Your task to perform on an android device: Play the last video I watched on Youtube Image 0: 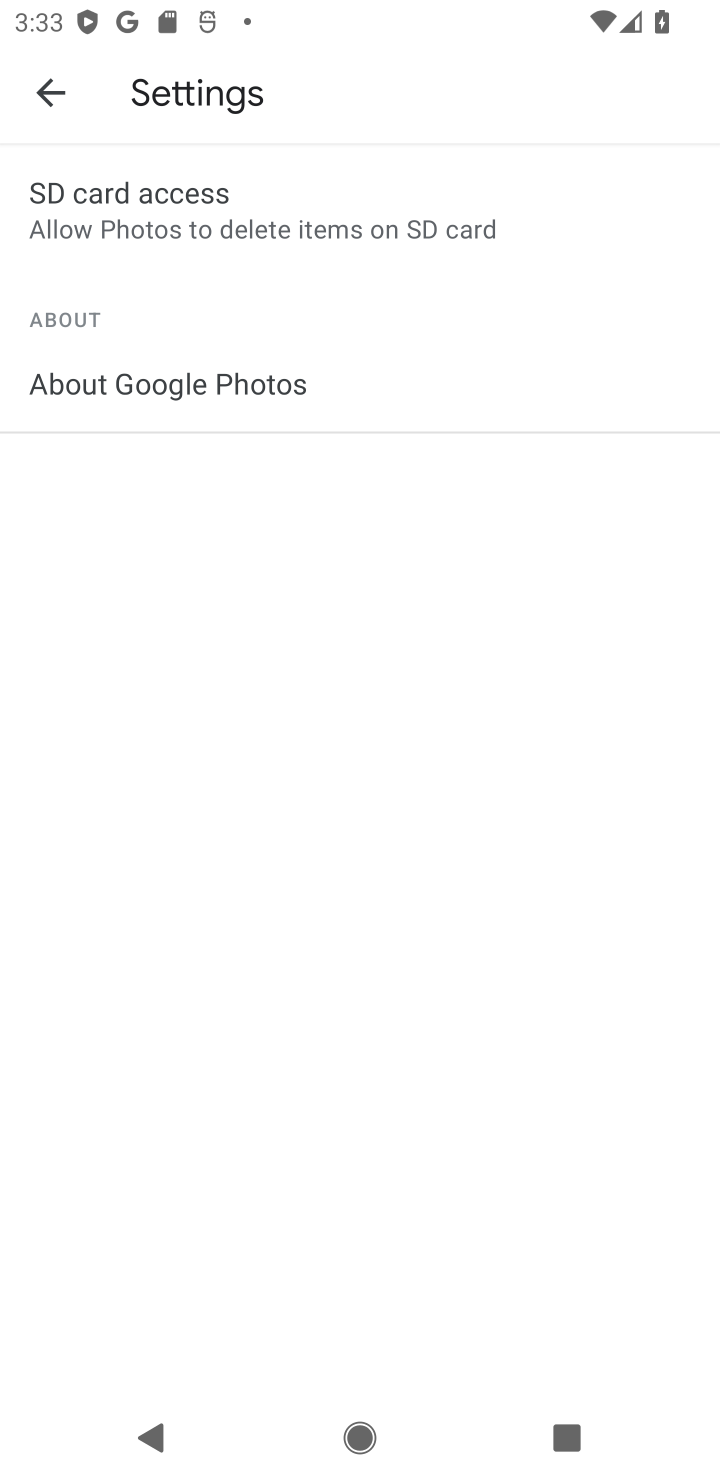
Step 0: press home button
Your task to perform on an android device: Play the last video I watched on Youtube Image 1: 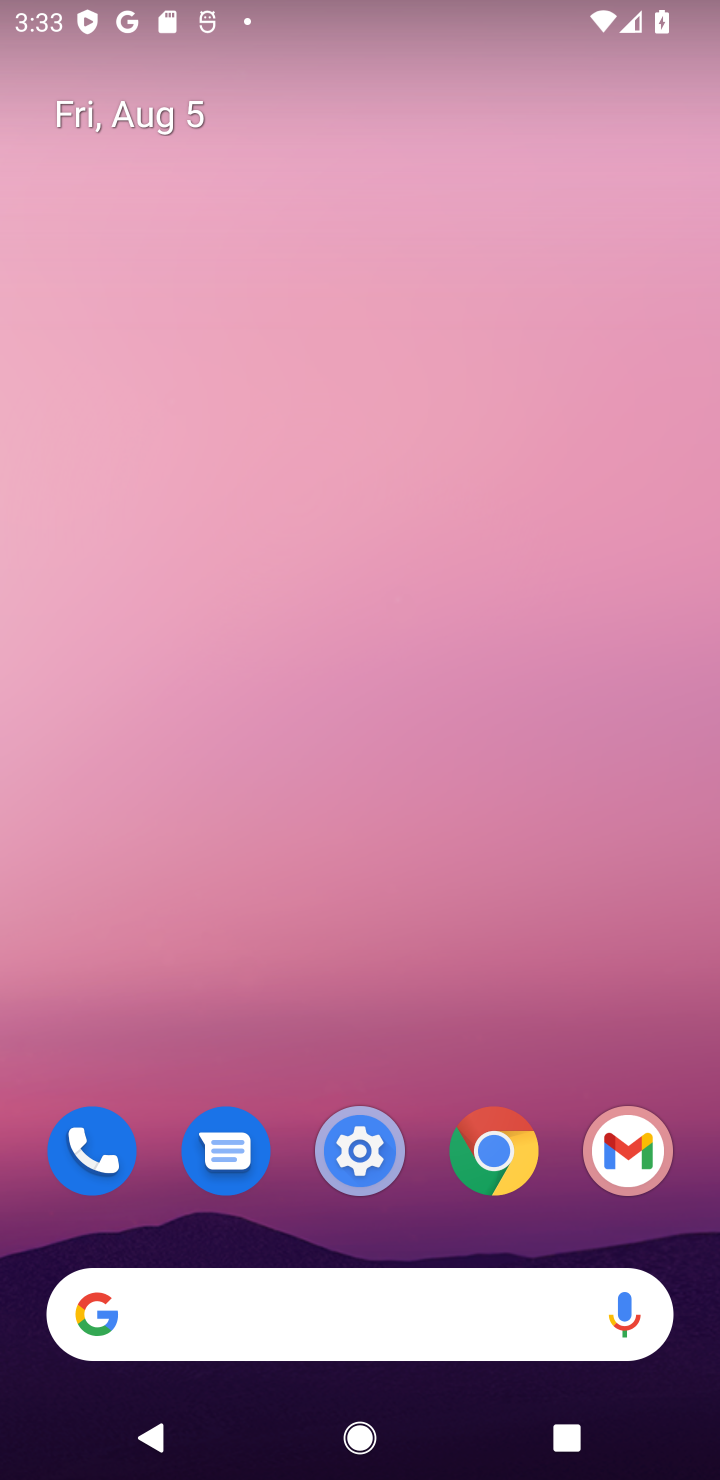
Step 1: drag from (446, 1040) to (392, 135)
Your task to perform on an android device: Play the last video I watched on Youtube Image 2: 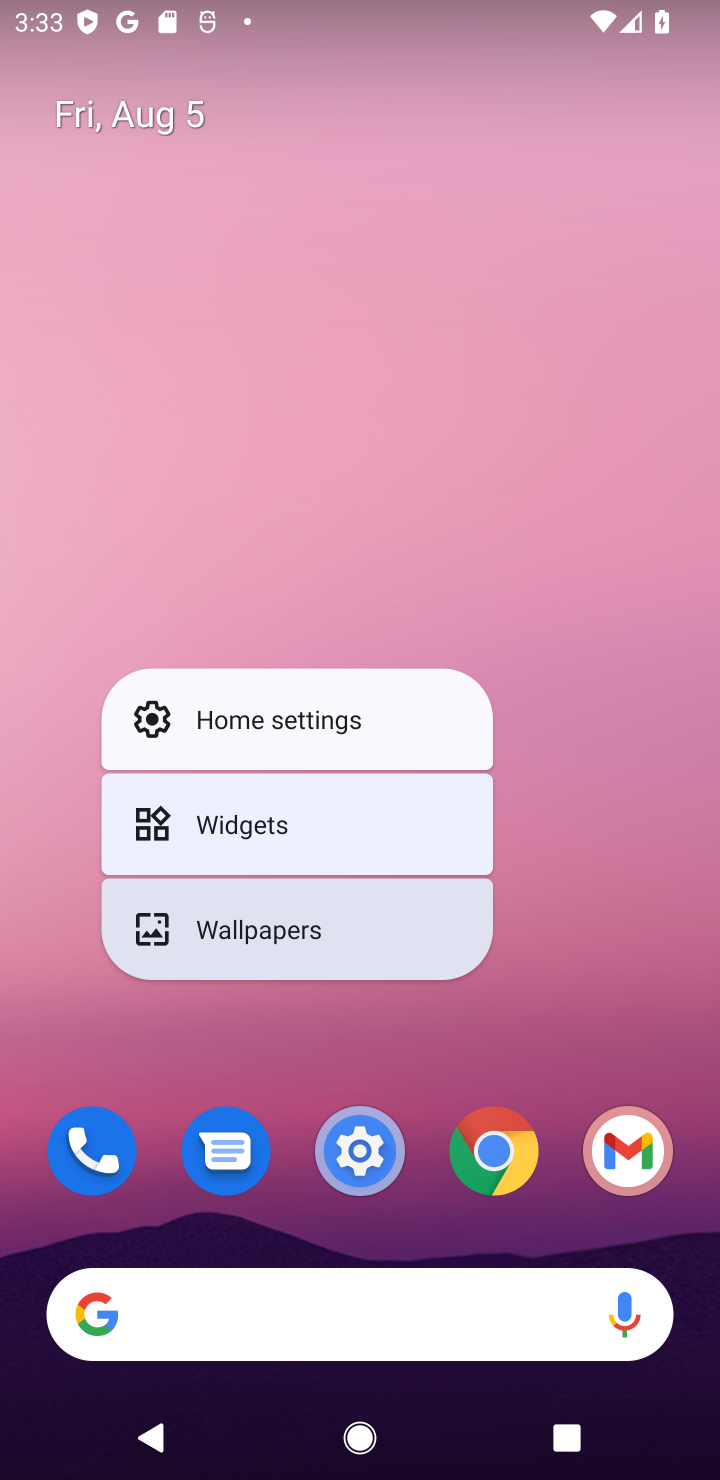
Step 2: click (410, 194)
Your task to perform on an android device: Play the last video I watched on Youtube Image 3: 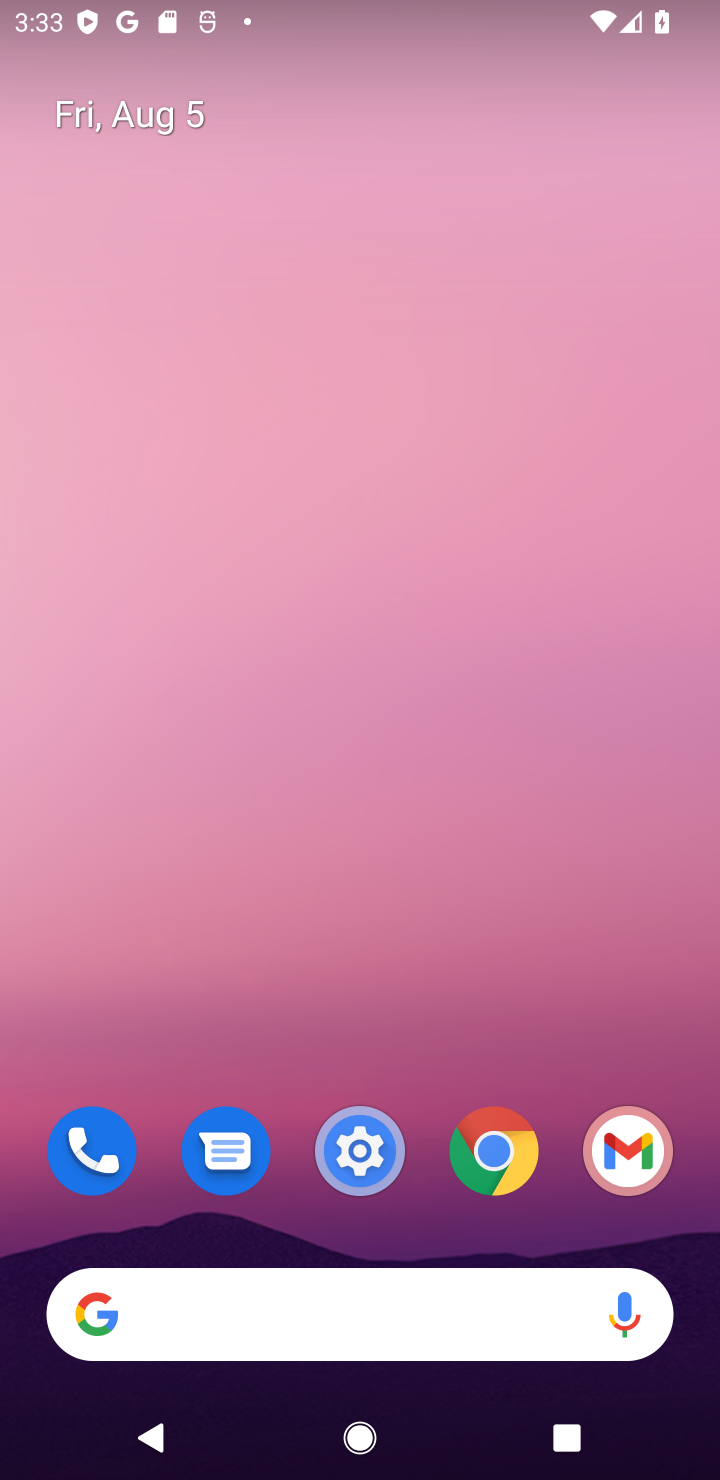
Step 3: drag from (436, 1019) to (534, 141)
Your task to perform on an android device: Play the last video I watched on Youtube Image 4: 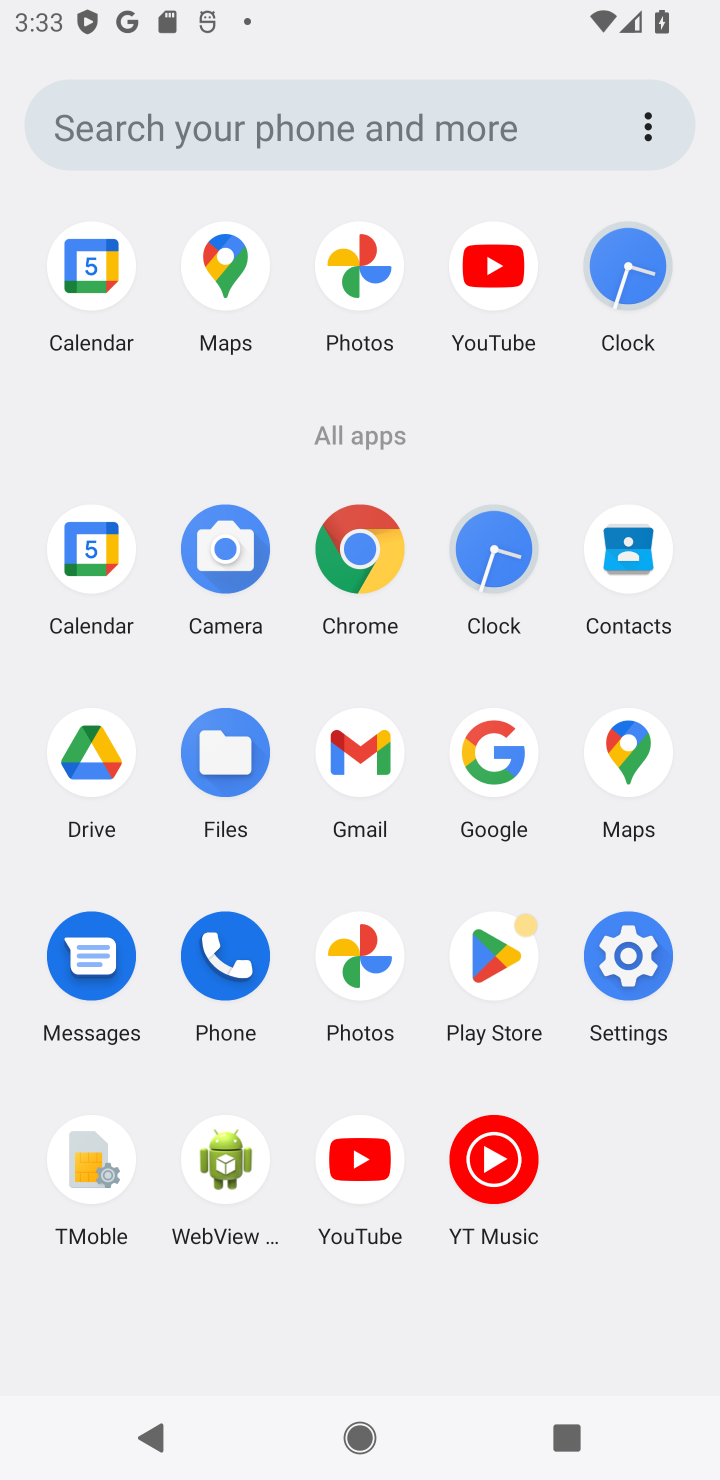
Step 4: click (352, 1164)
Your task to perform on an android device: Play the last video I watched on Youtube Image 5: 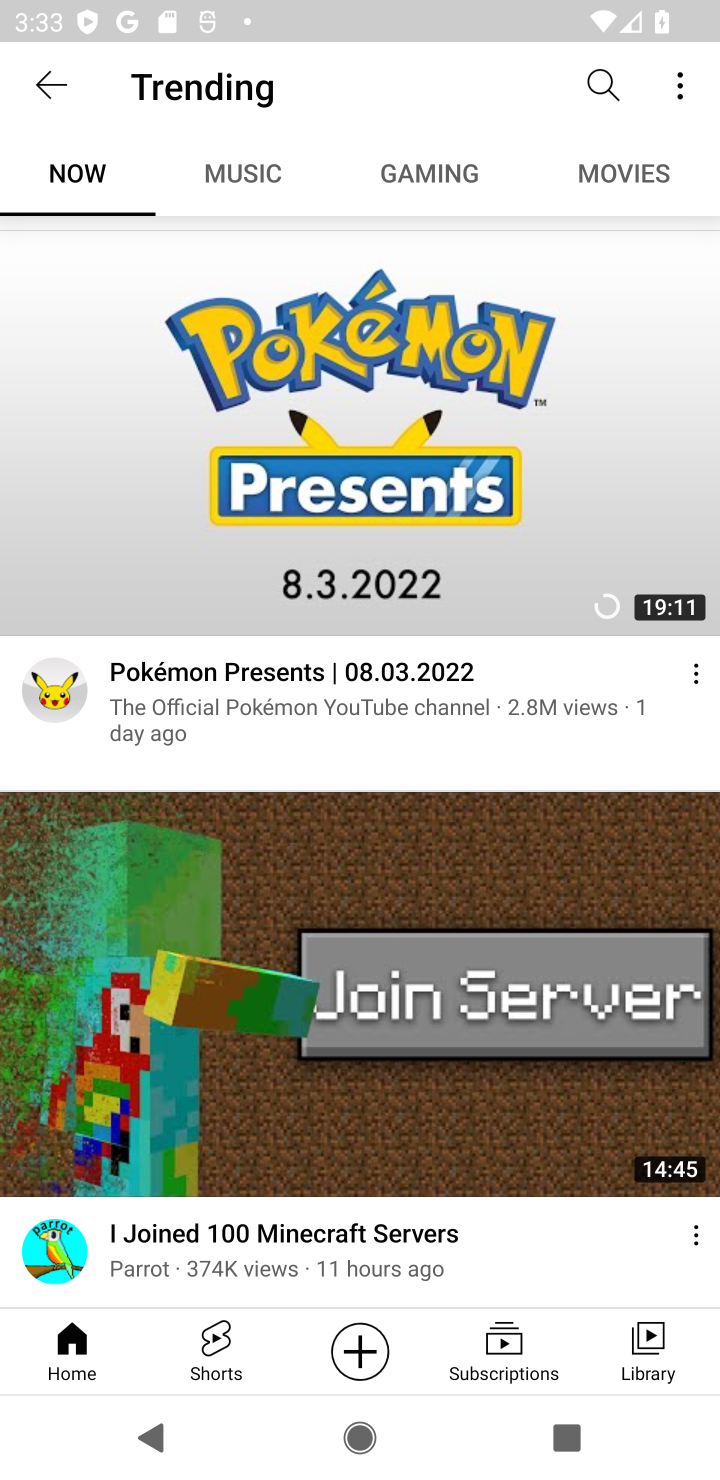
Step 5: click (647, 1356)
Your task to perform on an android device: Play the last video I watched on Youtube Image 6: 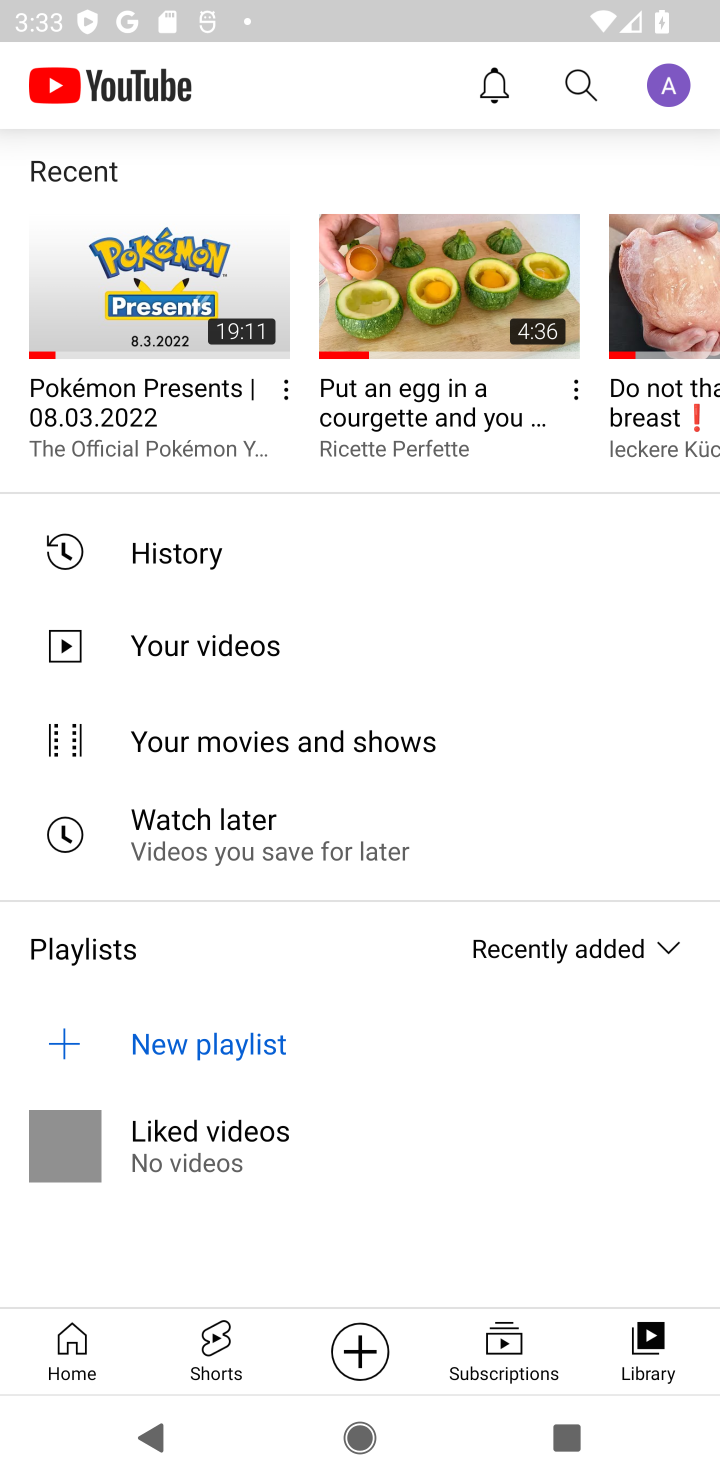
Step 6: click (164, 312)
Your task to perform on an android device: Play the last video I watched on Youtube Image 7: 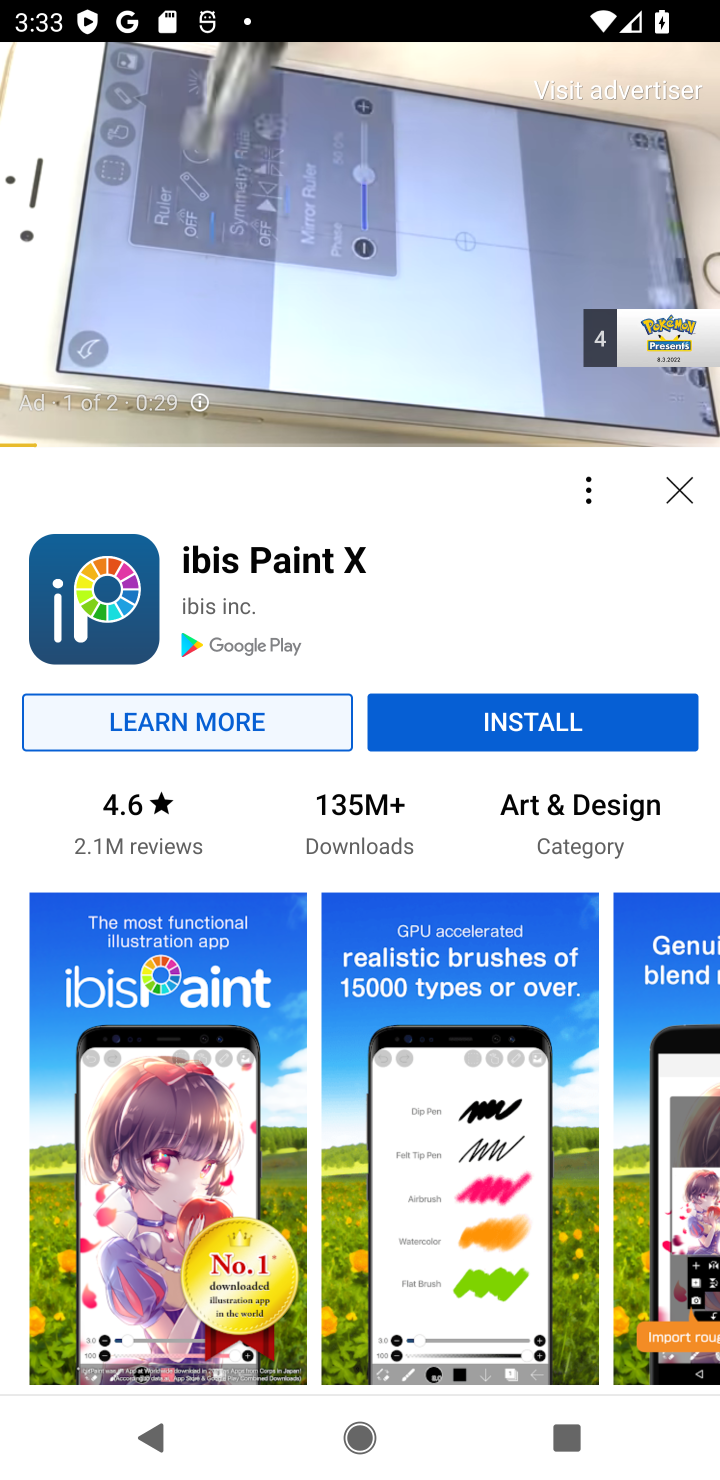
Step 7: task complete